Your task to perform on an android device: Open Google Chrome and click the shortcut for Amazon.com Image 0: 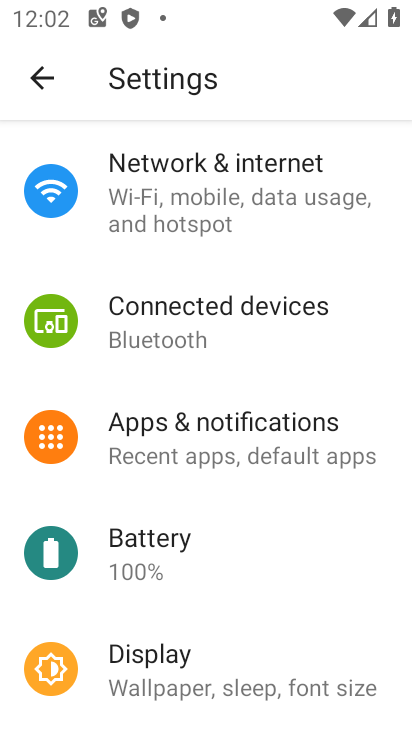
Step 0: press home button
Your task to perform on an android device: Open Google Chrome and click the shortcut for Amazon.com Image 1: 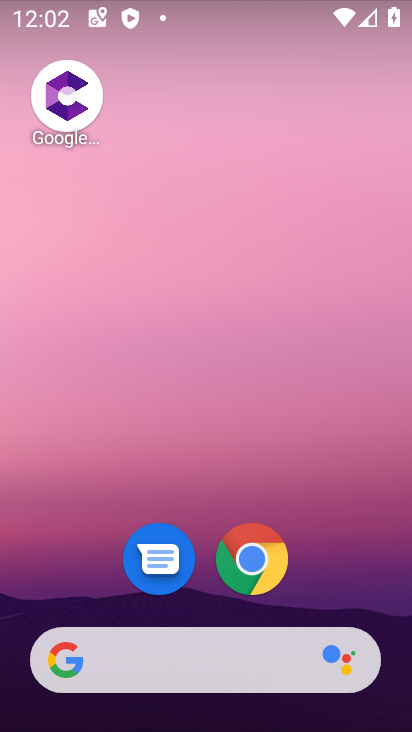
Step 1: click (265, 553)
Your task to perform on an android device: Open Google Chrome and click the shortcut for Amazon.com Image 2: 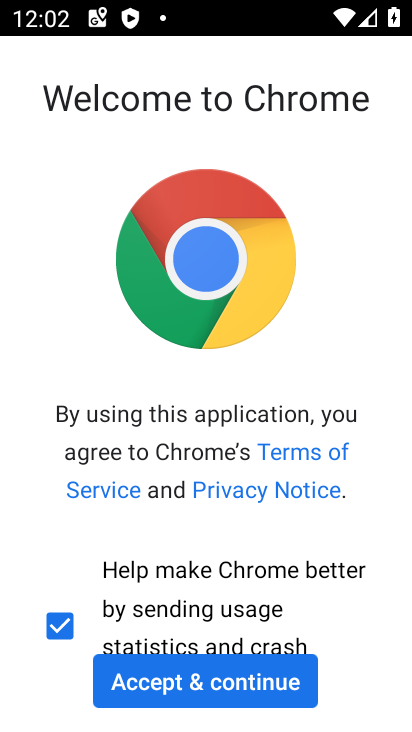
Step 2: click (138, 669)
Your task to perform on an android device: Open Google Chrome and click the shortcut for Amazon.com Image 3: 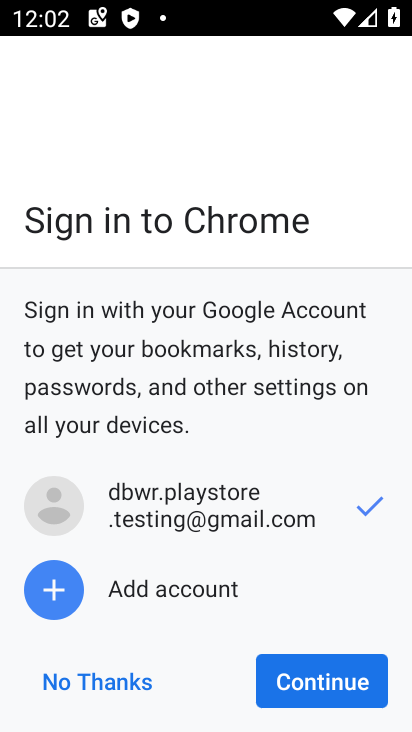
Step 3: click (321, 677)
Your task to perform on an android device: Open Google Chrome and click the shortcut for Amazon.com Image 4: 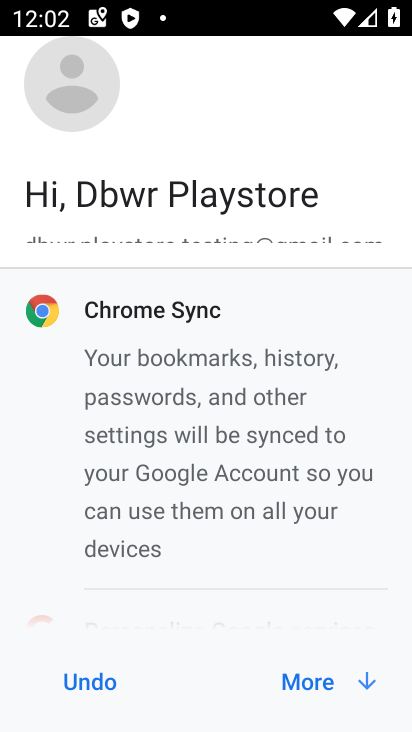
Step 4: click (321, 677)
Your task to perform on an android device: Open Google Chrome and click the shortcut for Amazon.com Image 5: 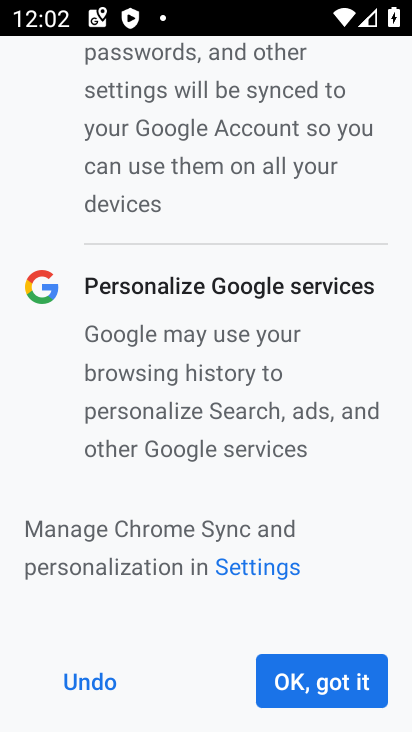
Step 5: click (321, 677)
Your task to perform on an android device: Open Google Chrome and click the shortcut for Amazon.com Image 6: 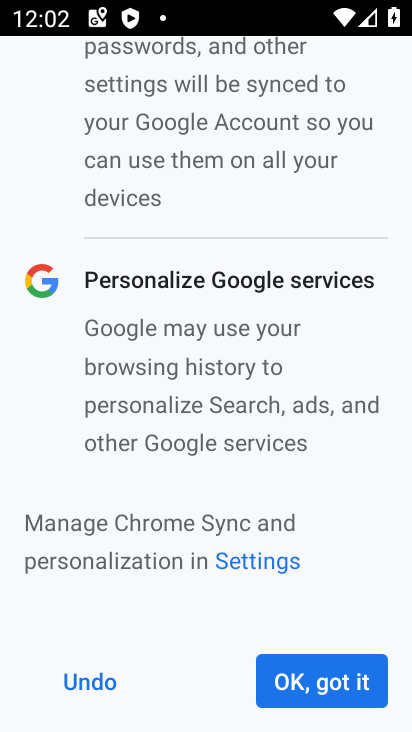
Step 6: click (321, 677)
Your task to perform on an android device: Open Google Chrome and click the shortcut for Amazon.com Image 7: 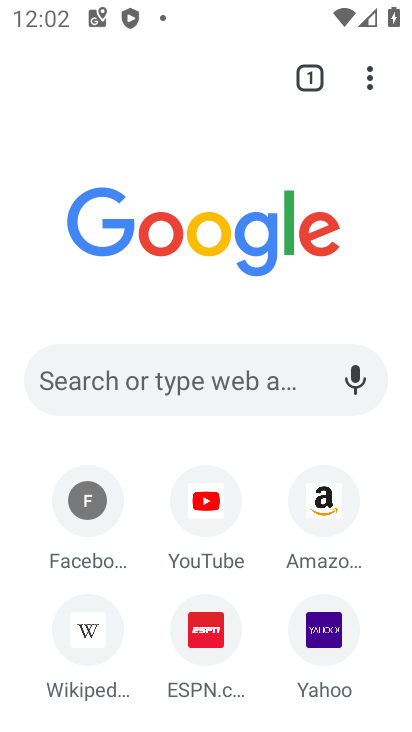
Step 7: click (335, 540)
Your task to perform on an android device: Open Google Chrome and click the shortcut for Amazon.com Image 8: 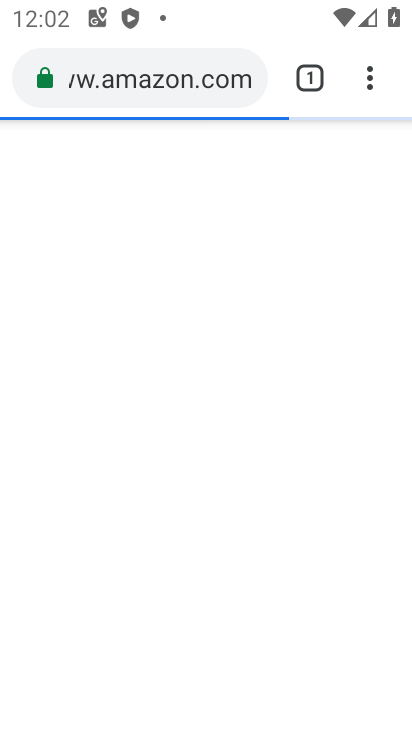
Step 8: task complete